Your task to perform on an android device: What's on my calendar today? Image 0: 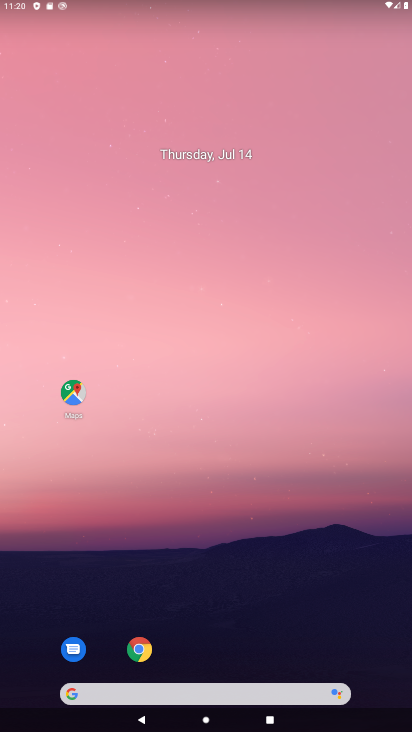
Step 0: drag from (206, 668) to (208, 211)
Your task to perform on an android device: What's on my calendar today? Image 1: 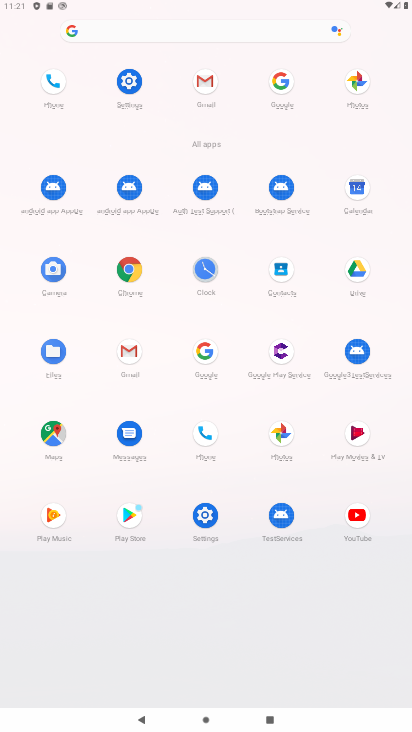
Step 1: click (361, 195)
Your task to perform on an android device: What's on my calendar today? Image 2: 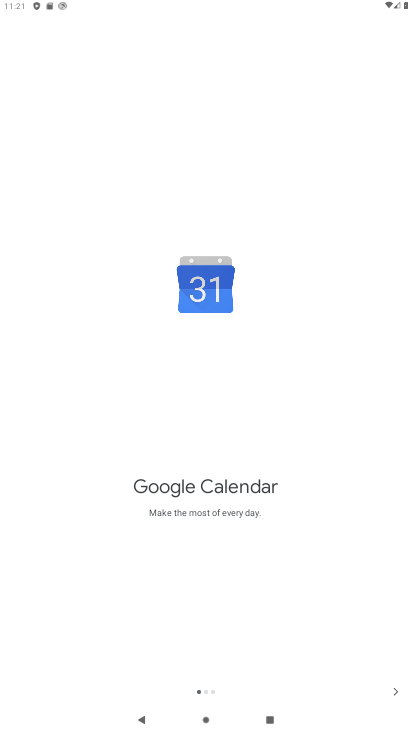
Step 2: click (397, 691)
Your task to perform on an android device: What's on my calendar today? Image 3: 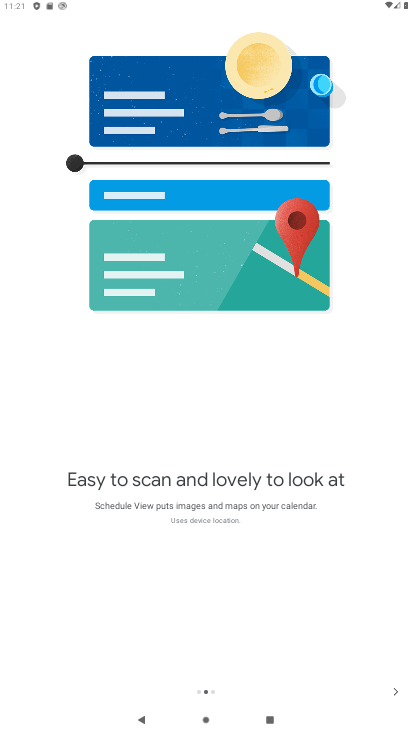
Step 3: click (397, 691)
Your task to perform on an android device: What's on my calendar today? Image 4: 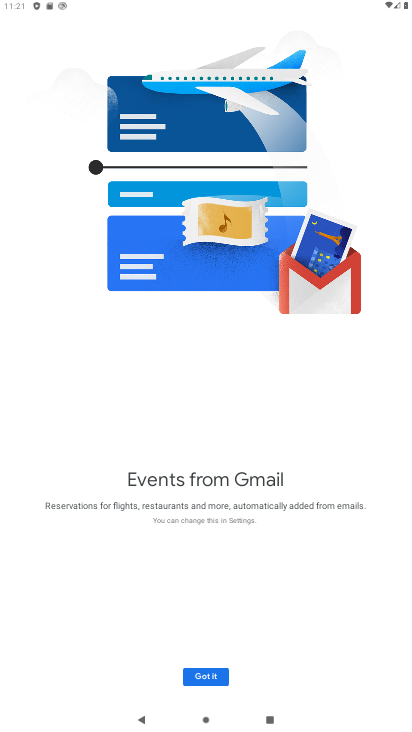
Step 4: click (200, 680)
Your task to perform on an android device: What's on my calendar today? Image 5: 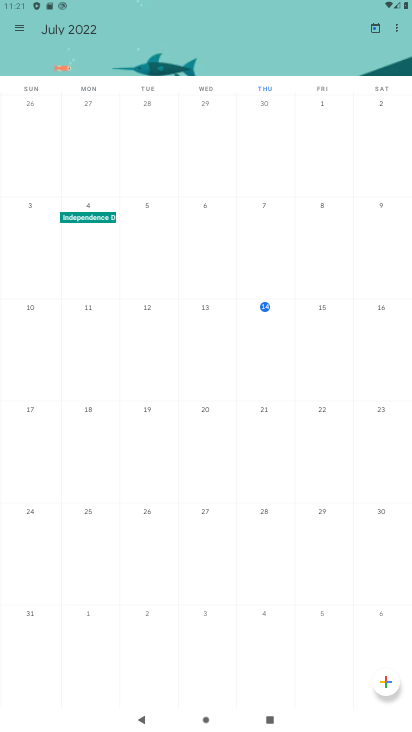
Step 5: task complete